Your task to perform on an android device: Open the map Image 0: 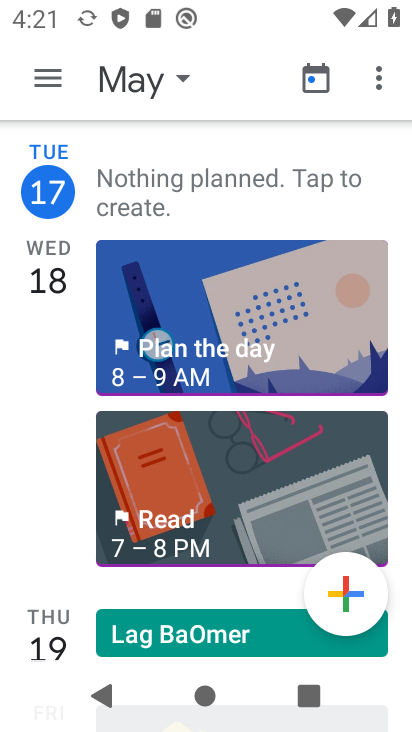
Step 0: press home button
Your task to perform on an android device: Open the map Image 1: 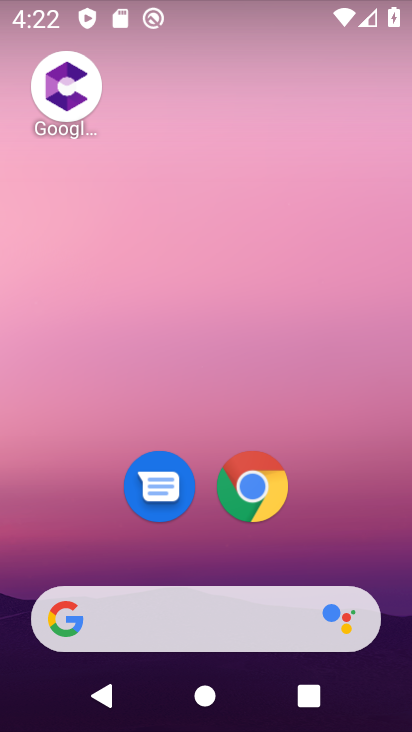
Step 1: drag from (366, 511) to (287, 9)
Your task to perform on an android device: Open the map Image 2: 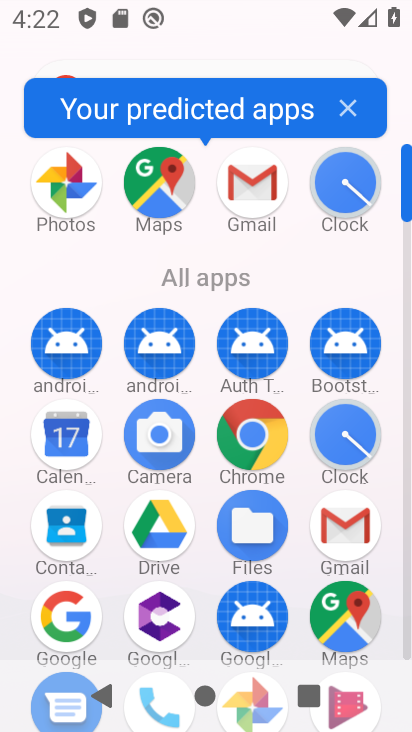
Step 2: click (143, 173)
Your task to perform on an android device: Open the map Image 3: 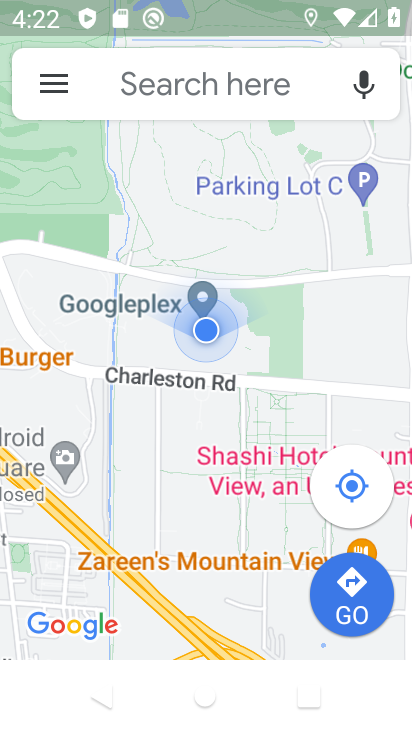
Step 3: task complete